Your task to perform on an android device: Go to Yahoo.com Image 0: 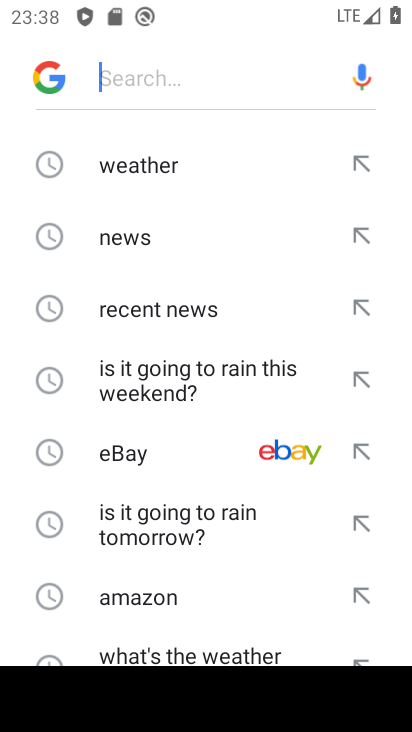
Step 0: press home button
Your task to perform on an android device: Go to Yahoo.com Image 1: 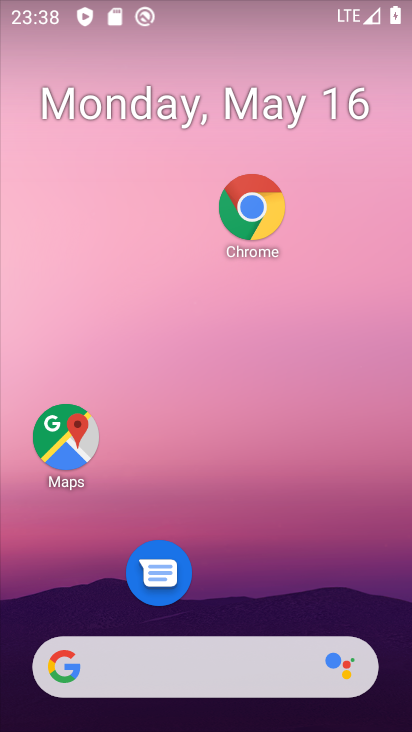
Step 1: drag from (365, 556) to (325, 5)
Your task to perform on an android device: Go to Yahoo.com Image 2: 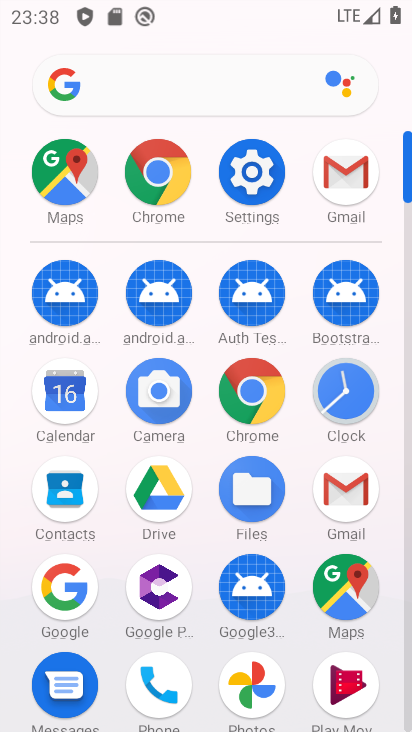
Step 2: click (235, 377)
Your task to perform on an android device: Go to Yahoo.com Image 3: 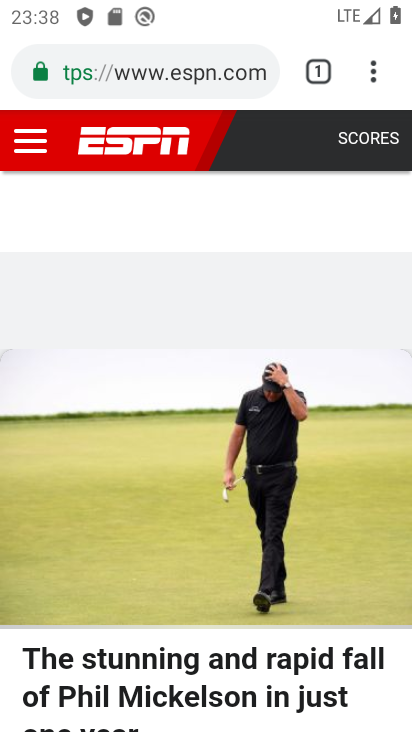
Step 3: click (219, 50)
Your task to perform on an android device: Go to Yahoo.com Image 4: 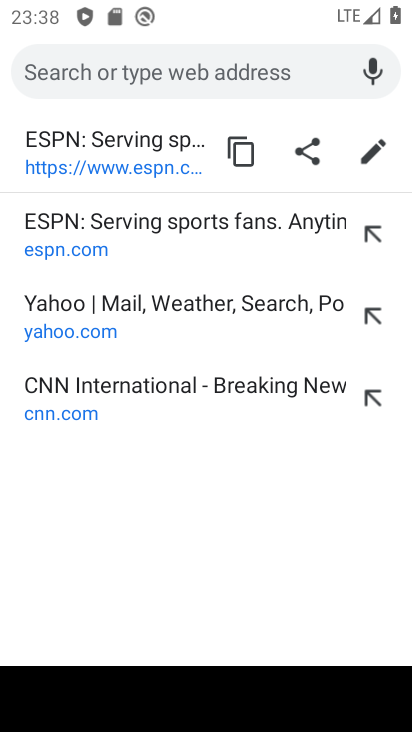
Step 4: click (100, 323)
Your task to perform on an android device: Go to Yahoo.com Image 5: 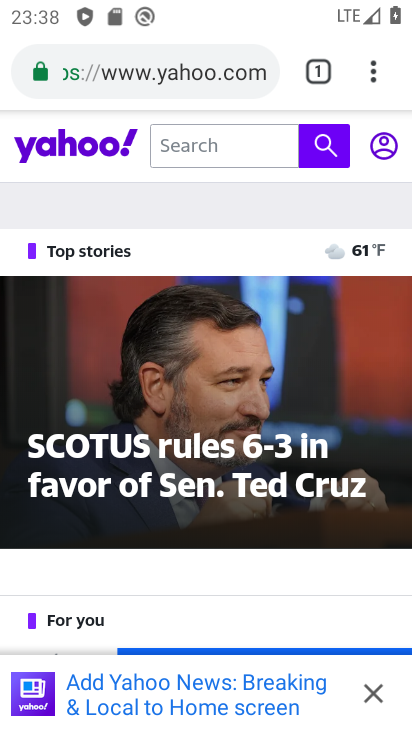
Step 5: task complete